Your task to perform on an android device: all mails in gmail Image 0: 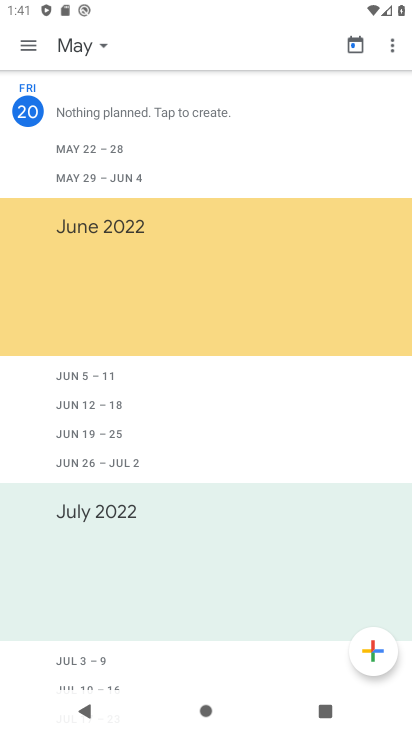
Step 0: press home button
Your task to perform on an android device: all mails in gmail Image 1: 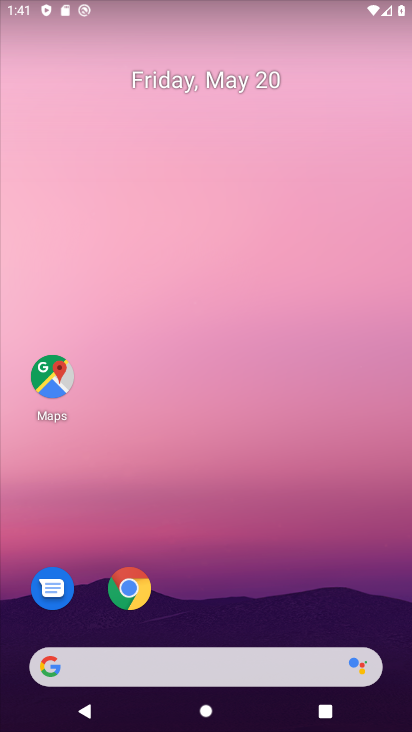
Step 1: drag from (187, 675) to (148, 73)
Your task to perform on an android device: all mails in gmail Image 2: 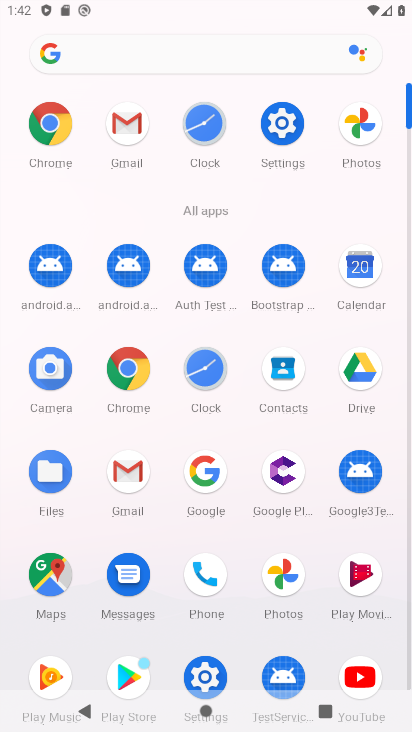
Step 2: click (125, 132)
Your task to perform on an android device: all mails in gmail Image 3: 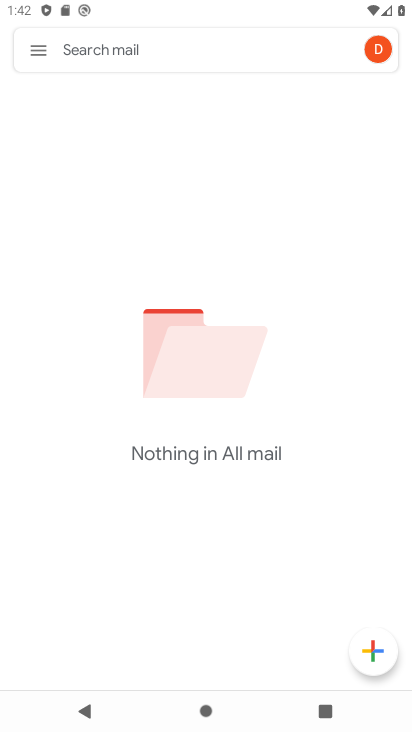
Step 3: click (44, 57)
Your task to perform on an android device: all mails in gmail Image 4: 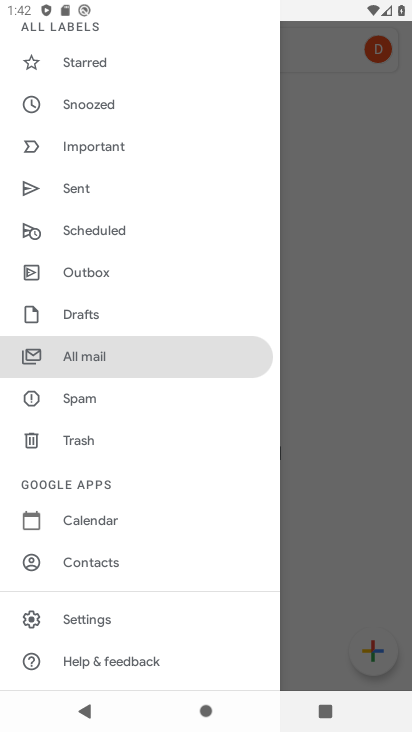
Step 4: click (110, 353)
Your task to perform on an android device: all mails in gmail Image 5: 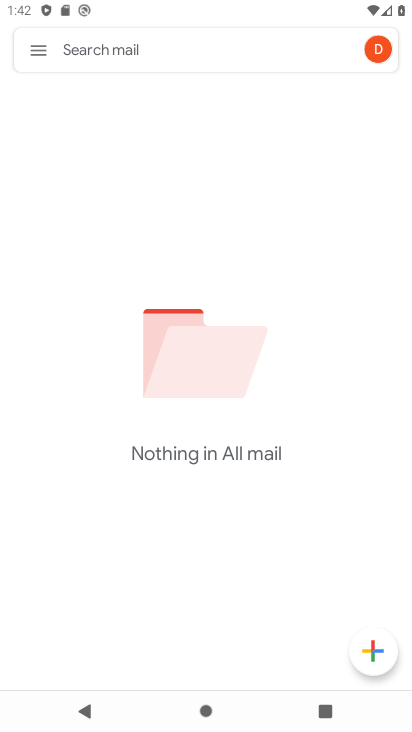
Step 5: task complete